Your task to perform on an android device: toggle wifi Image 0: 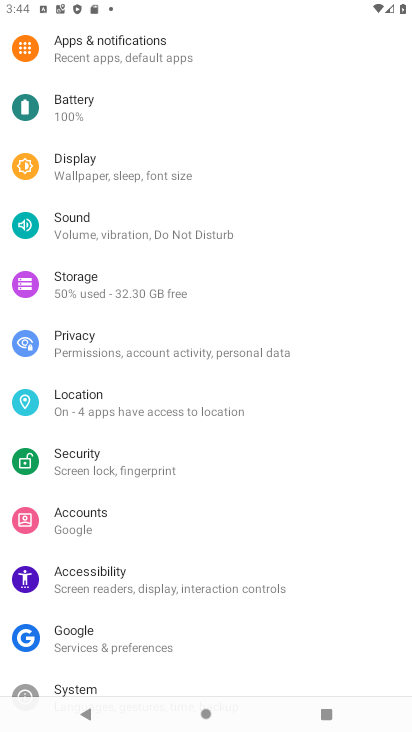
Step 0: press home button
Your task to perform on an android device: toggle wifi Image 1: 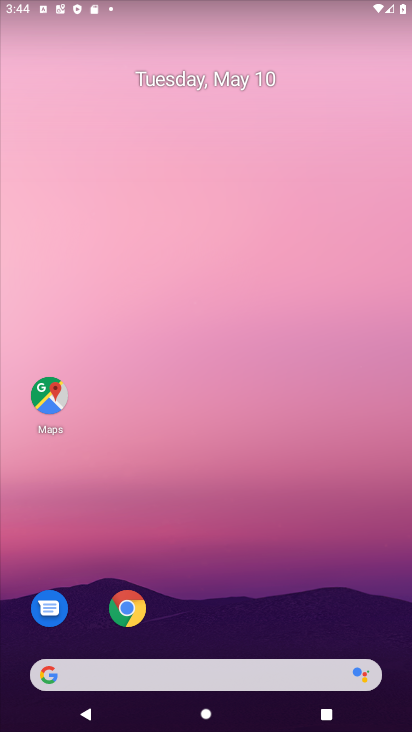
Step 1: drag from (370, 637) to (268, 7)
Your task to perform on an android device: toggle wifi Image 2: 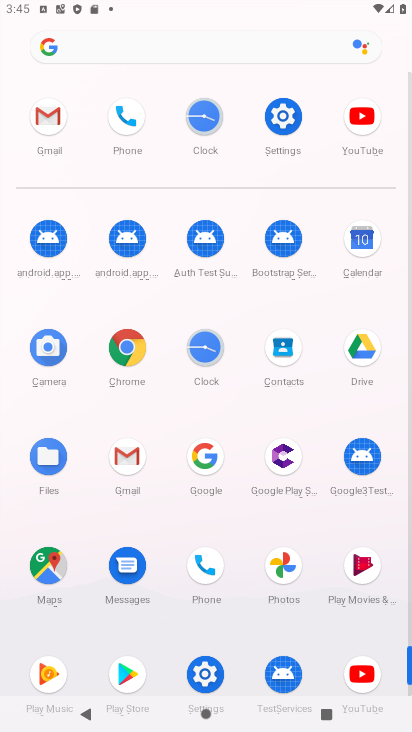
Step 2: click (203, 675)
Your task to perform on an android device: toggle wifi Image 3: 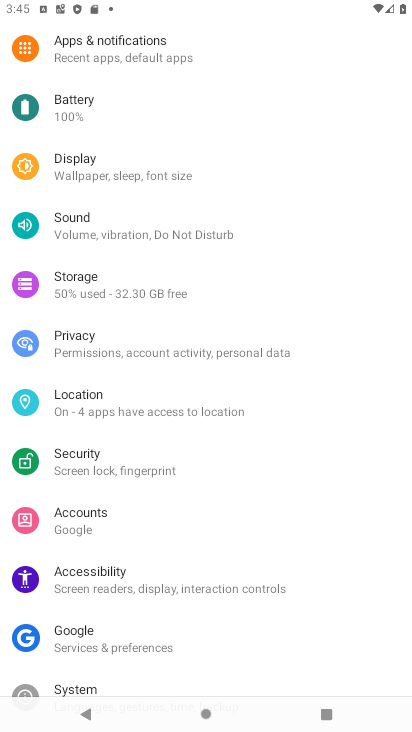
Step 3: drag from (281, 134) to (252, 417)
Your task to perform on an android device: toggle wifi Image 4: 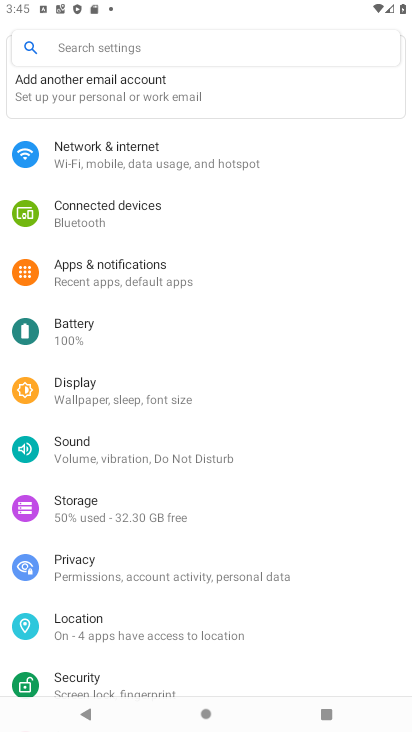
Step 4: click (84, 149)
Your task to perform on an android device: toggle wifi Image 5: 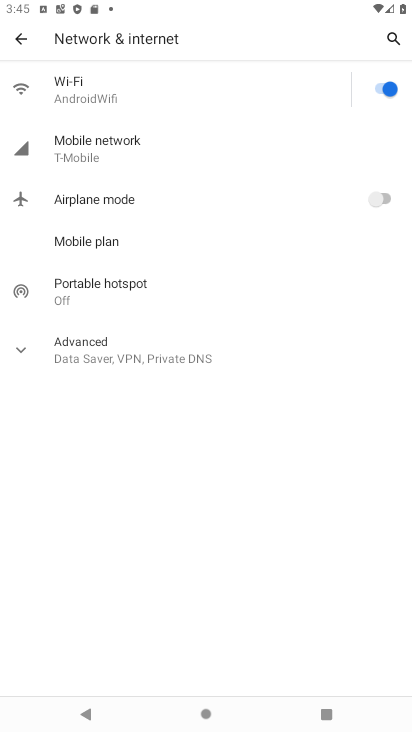
Step 5: click (373, 88)
Your task to perform on an android device: toggle wifi Image 6: 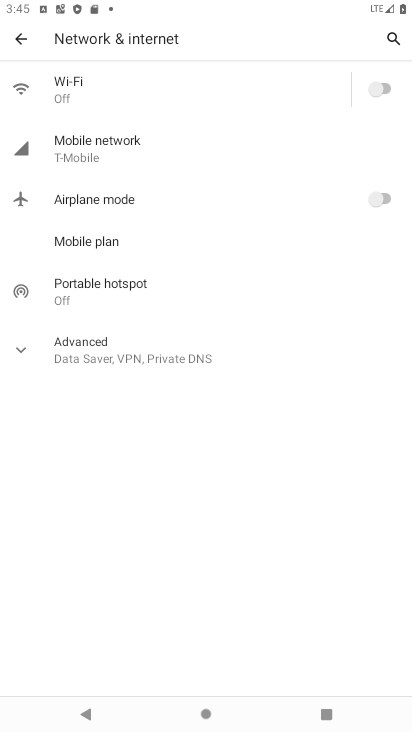
Step 6: task complete